Your task to perform on an android device: Open the phone app and click the voicemail tab. Image 0: 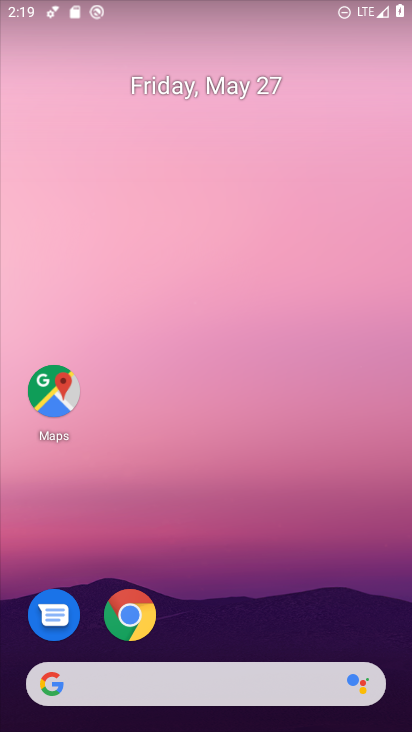
Step 0: drag from (222, 643) to (303, 34)
Your task to perform on an android device: Open the phone app and click the voicemail tab. Image 1: 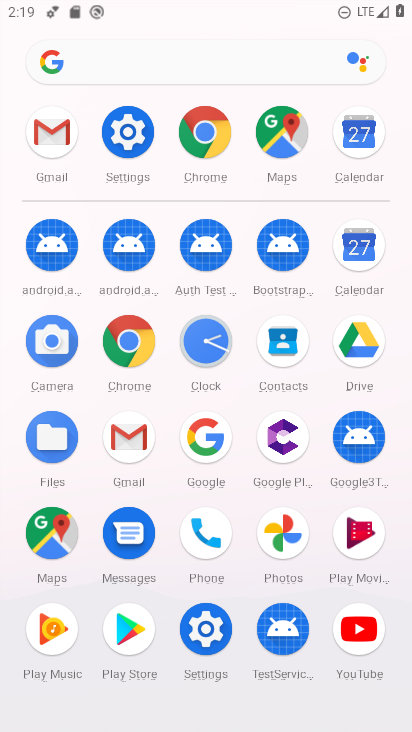
Step 1: click (222, 539)
Your task to perform on an android device: Open the phone app and click the voicemail tab. Image 2: 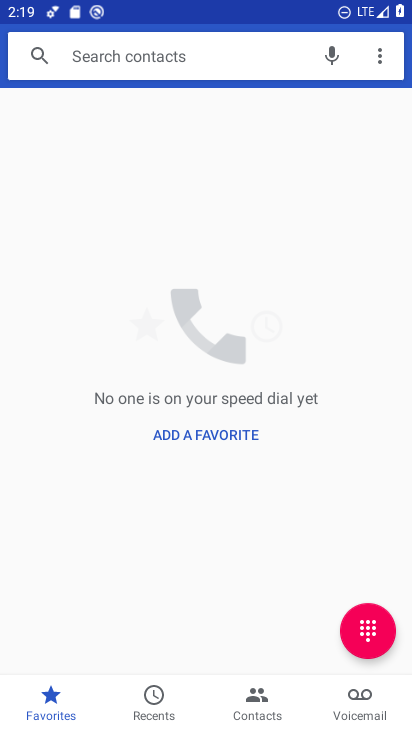
Step 2: click (370, 725)
Your task to perform on an android device: Open the phone app and click the voicemail tab. Image 3: 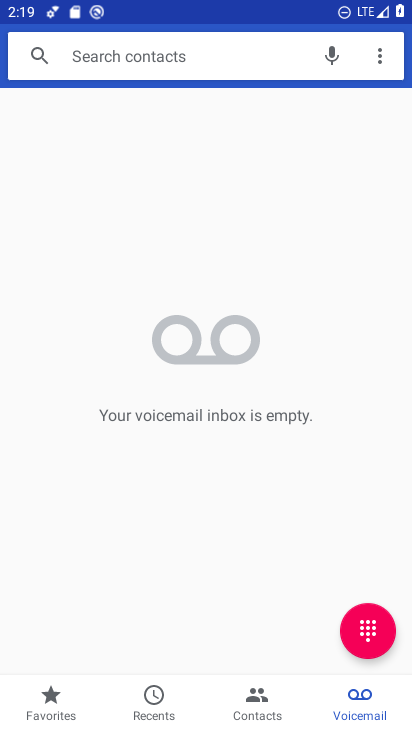
Step 3: task complete